Your task to perform on an android device: delete the emails in spam in the gmail app Image 0: 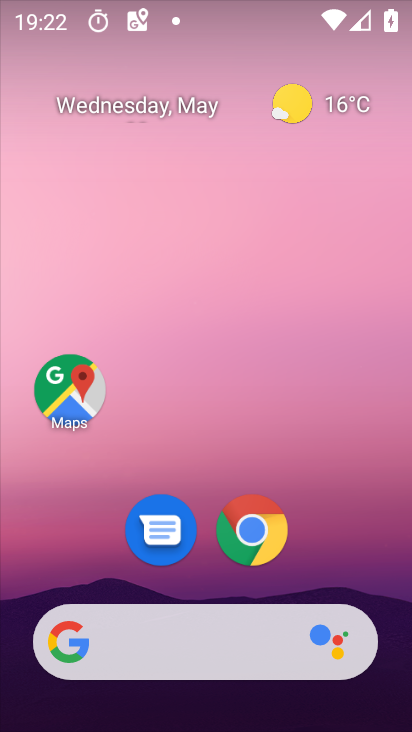
Step 0: drag from (202, 572) to (218, 261)
Your task to perform on an android device: delete the emails in spam in the gmail app Image 1: 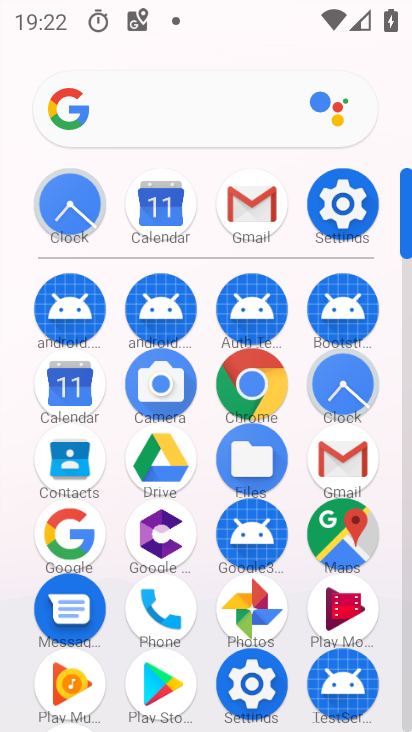
Step 1: click (348, 472)
Your task to perform on an android device: delete the emails in spam in the gmail app Image 2: 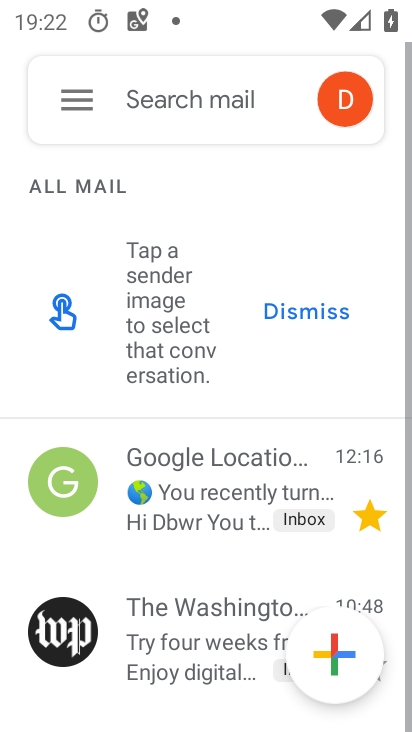
Step 2: click (76, 99)
Your task to perform on an android device: delete the emails in spam in the gmail app Image 3: 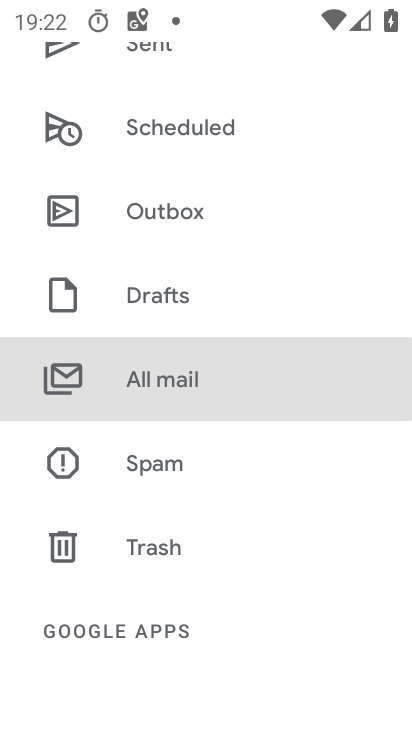
Step 3: click (129, 468)
Your task to perform on an android device: delete the emails in spam in the gmail app Image 4: 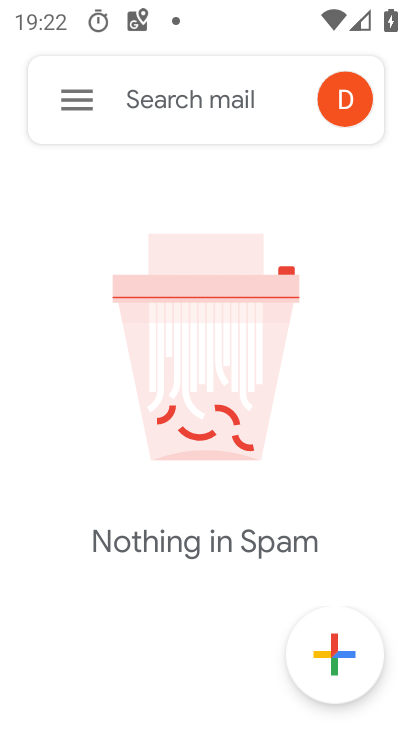
Step 4: task complete